Your task to perform on an android device: allow cookies in the chrome app Image 0: 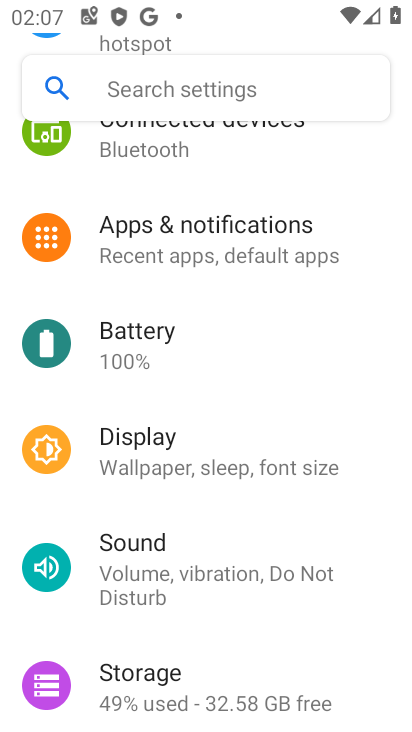
Step 0: press home button
Your task to perform on an android device: allow cookies in the chrome app Image 1: 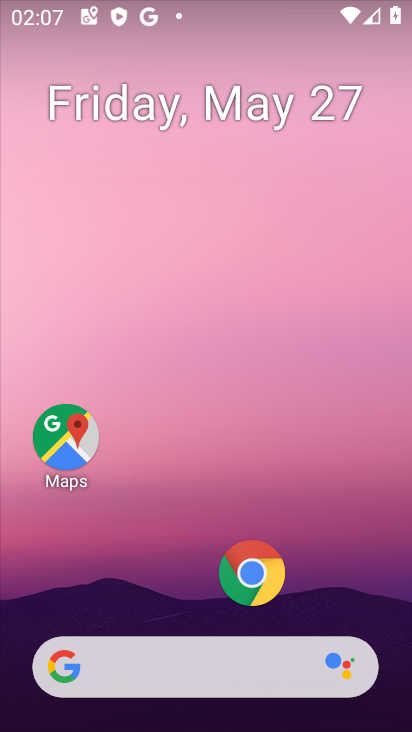
Step 1: click (243, 577)
Your task to perform on an android device: allow cookies in the chrome app Image 2: 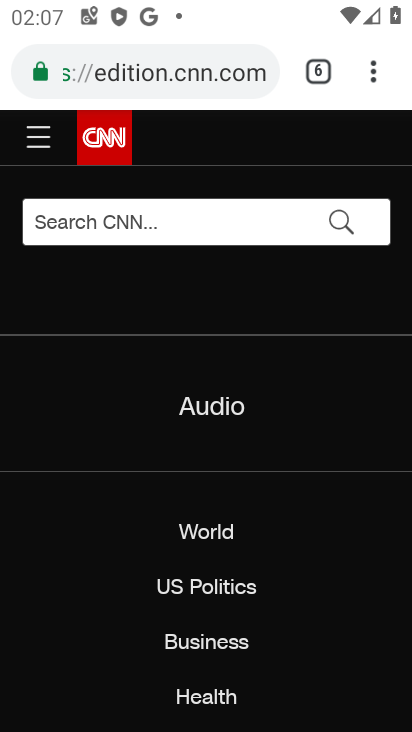
Step 2: drag from (371, 74) to (130, 552)
Your task to perform on an android device: allow cookies in the chrome app Image 3: 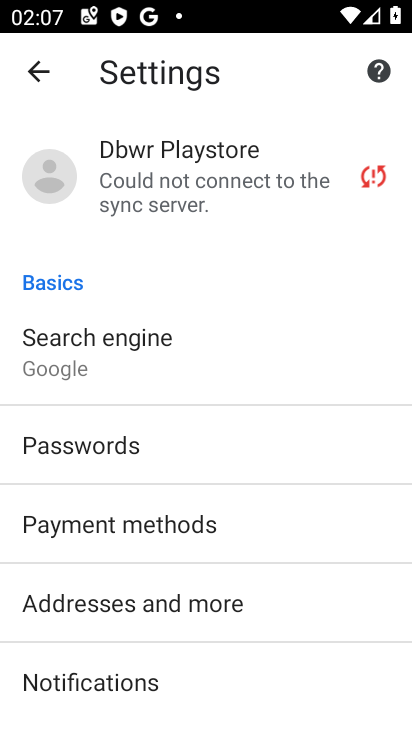
Step 3: drag from (166, 561) to (149, 140)
Your task to perform on an android device: allow cookies in the chrome app Image 4: 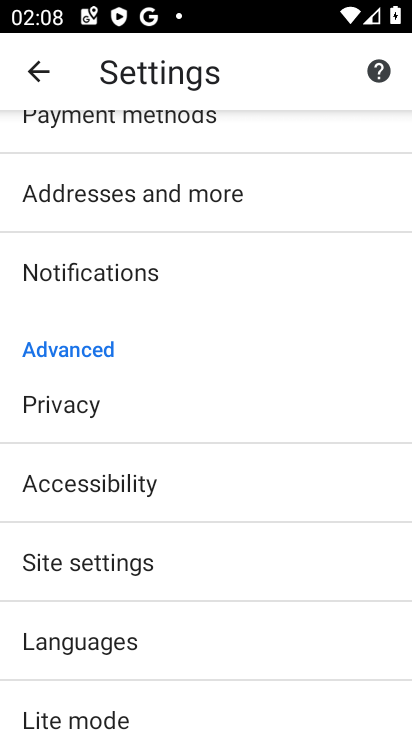
Step 4: drag from (103, 681) to (98, 556)
Your task to perform on an android device: allow cookies in the chrome app Image 5: 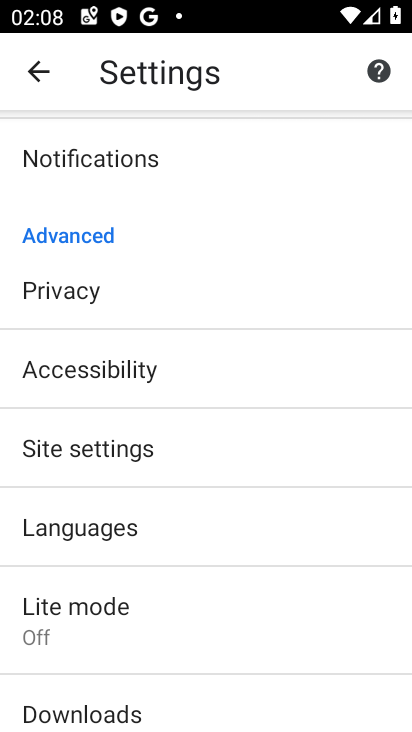
Step 5: click (96, 468)
Your task to perform on an android device: allow cookies in the chrome app Image 6: 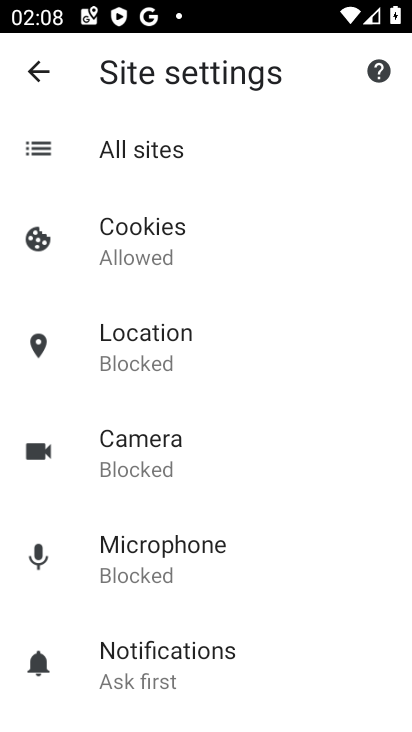
Step 6: click (149, 247)
Your task to perform on an android device: allow cookies in the chrome app Image 7: 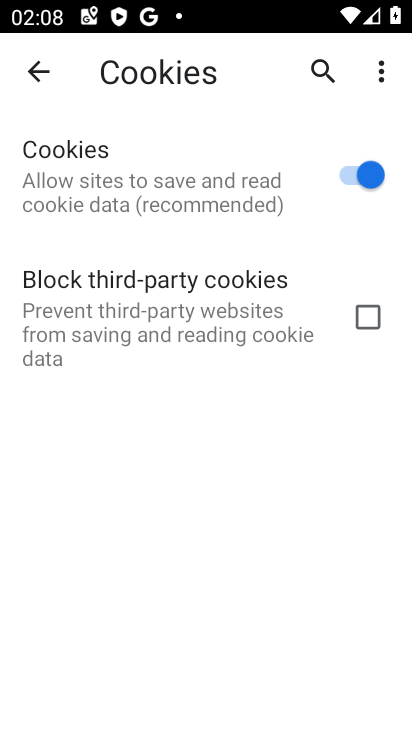
Step 7: task complete